Your task to perform on an android device: turn smart compose on in the gmail app Image 0: 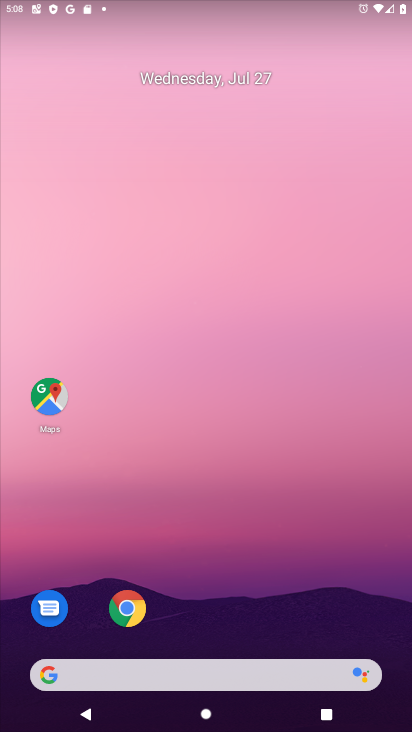
Step 0: drag from (228, 611) to (183, 43)
Your task to perform on an android device: turn smart compose on in the gmail app Image 1: 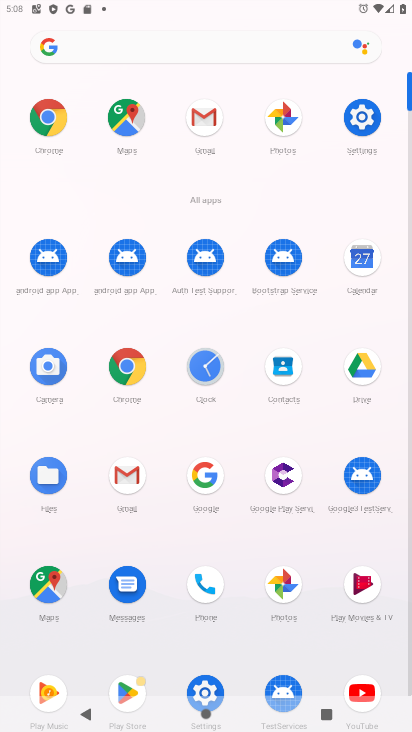
Step 1: click (107, 469)
Your task to perform on an android device: turn smart compose on in the gmail app Image 2: 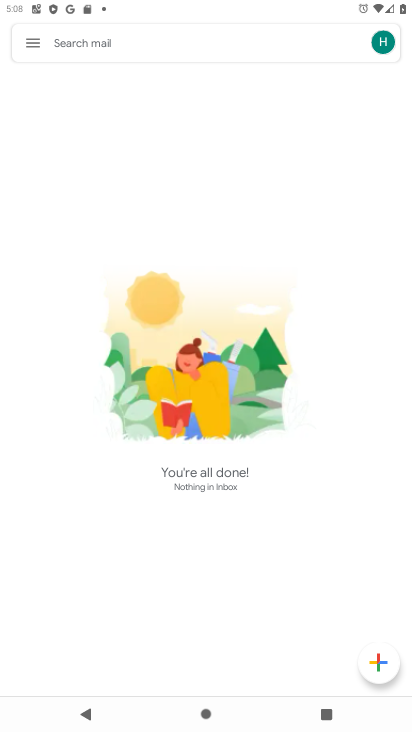
Step 2: click (38, 47)
Your task to perform on an android device: turn smart compose on in the gmail app Image 3: 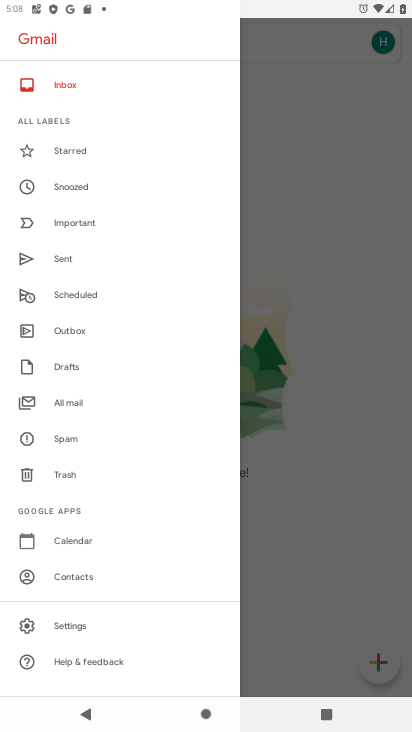
Step 3: click (39, 614)
Your task to perform on an android device: turn smart compose on in the gmail app Image 4: 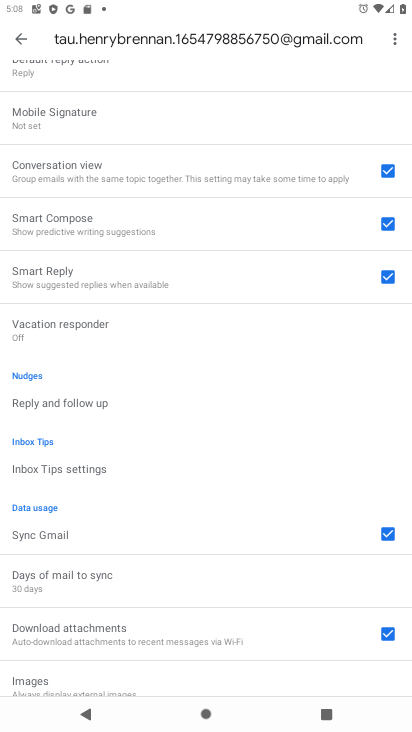
Step 4: task complete